Your task to perform on an android device: turn off priority inbox in the gmail app Image 0: 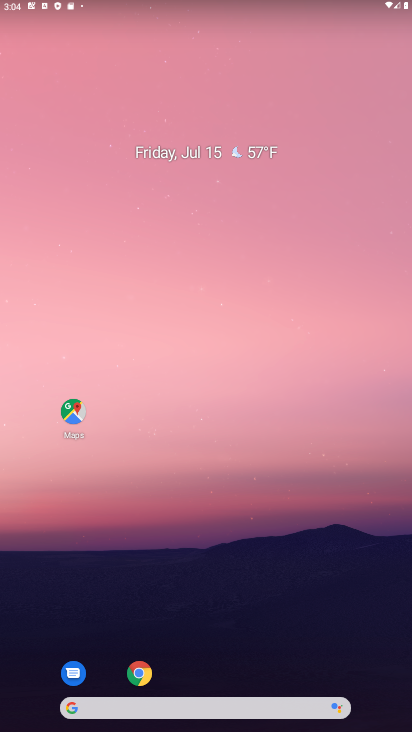
Step 0: drag from (382, 670) to (341, 107)
Your task to perform on an android device: turn off priority inbox in the gmail app Image 1: 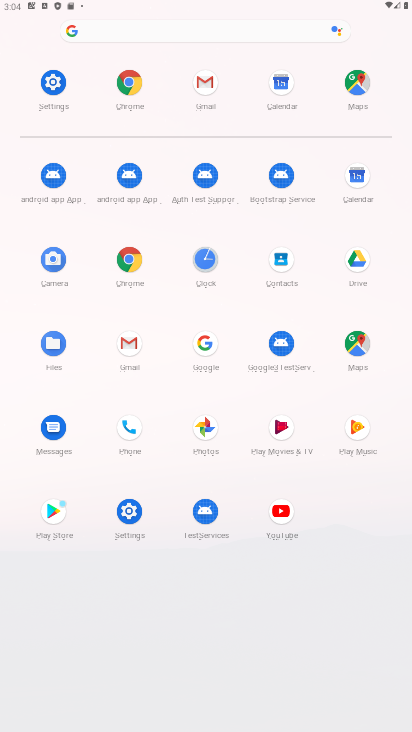
Step 1: click (128, 344)
Your task to perform on an android device: turn off priority inbox in the gmail app Image 2: 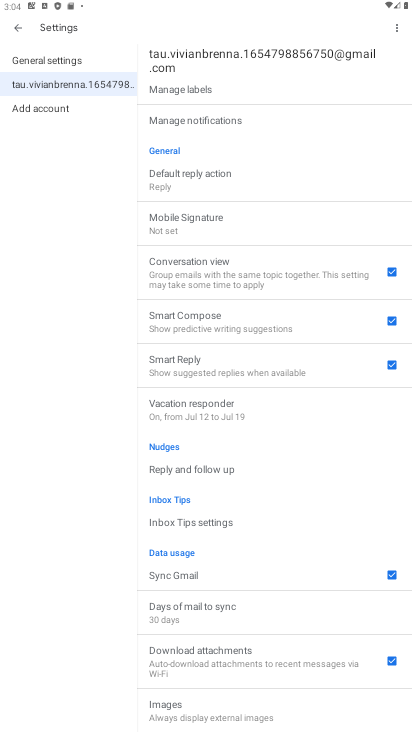
Step 2: drag from (267, 183) to (235, 449)
Your task to perform on an android device: turn off priority inbox in the gmail app Image 3: 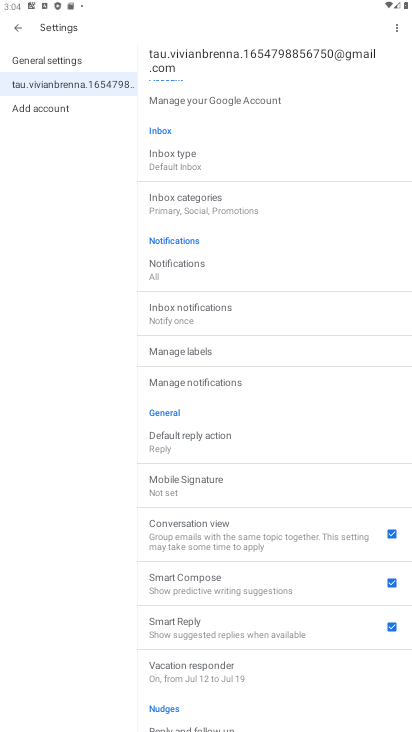
Step 3: click (169, 157)
Your task to perform on an android device: turn off priority inbox in the gmail app Image 4: 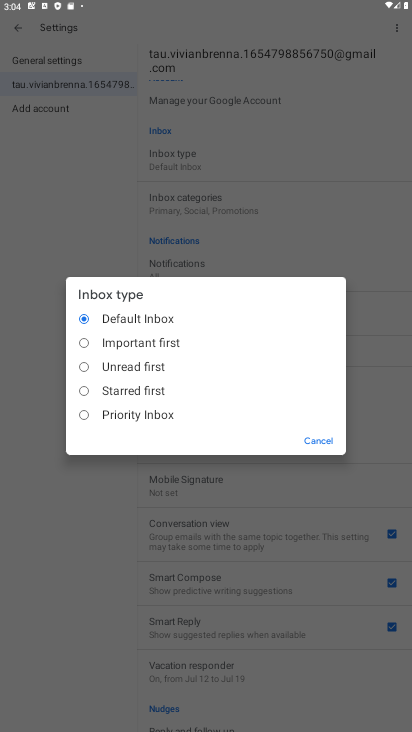
Step 4: task complete